Your task to perform on an android device: check android version Image 0: 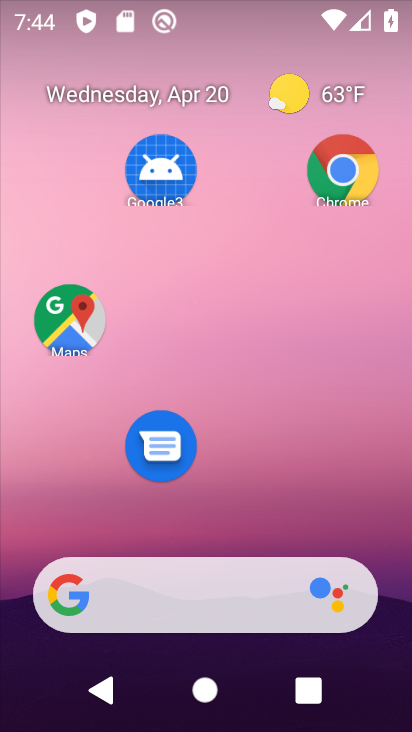
Step 0: drag from (243, 516) to (220, 4)
Your task to perform on an android device: check android version Image 1: 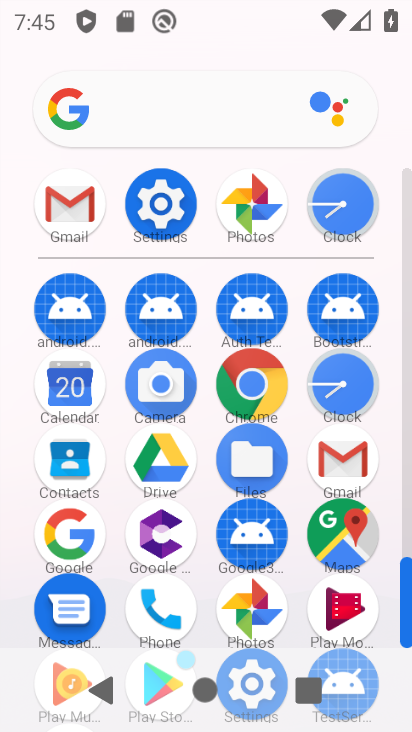
Step 1: click (166, 204)
Your task to perform on an android device: check android version Image 2: 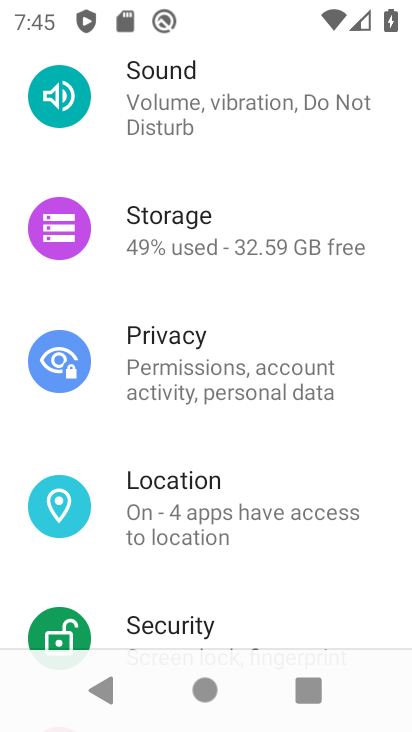
Step 2: drag from (256, 590) to (249, 98)
Your task to perform on an android device: check android version Image 3: 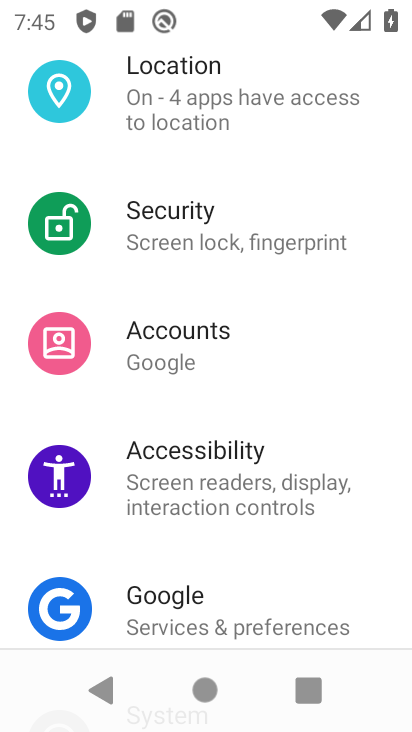
Step 3: drag from (255, 577) to (248, 121)
Your task to perform on an android device: check android version Image 4: 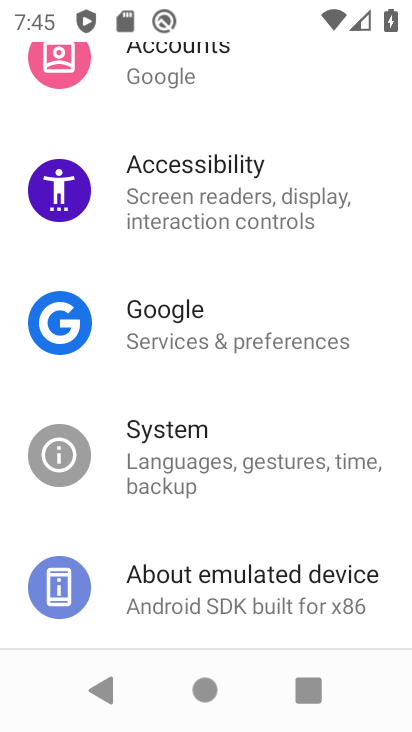
Step 4: click (213, 581)
Your task to perform on an android device: check android version Image 5: 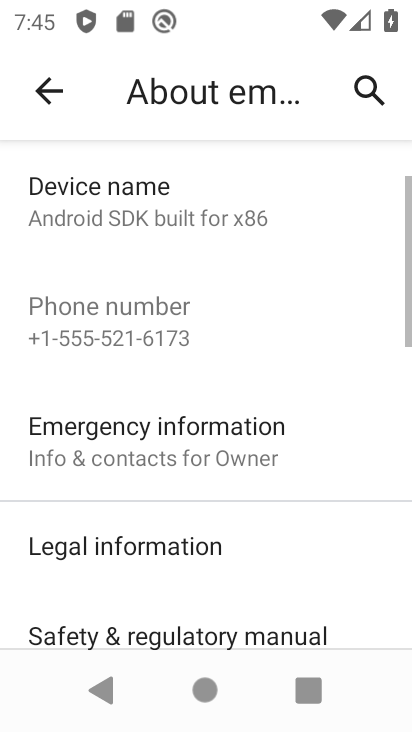
Step 5: task complete